Your task to perform on an android device: Show me the alarms in the clock app Image 0: 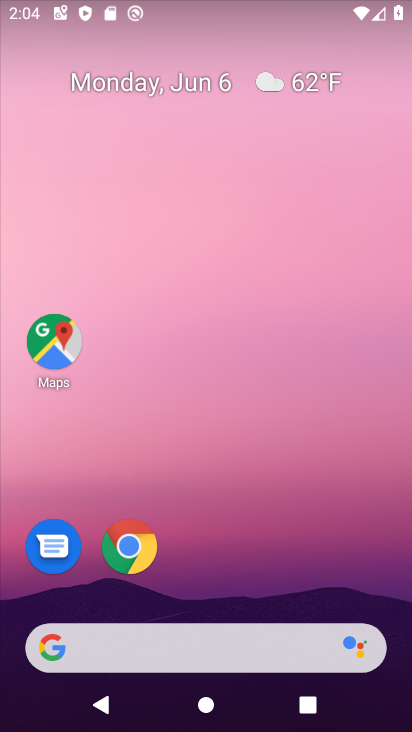
Step 0: drag from (290, 556) to (287, 159)
Your task to perform on an android device: Show me the alarms in the clock app Image 1: 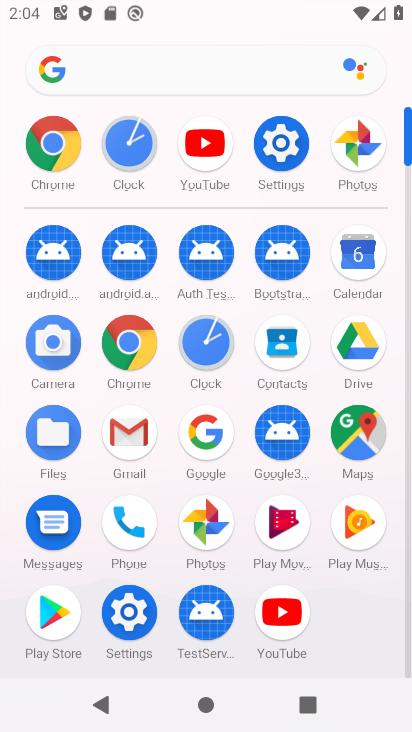
Step 1: click (126, 154)
Your task to perform on an android device: Show me the alarms in the clock app Image 2: 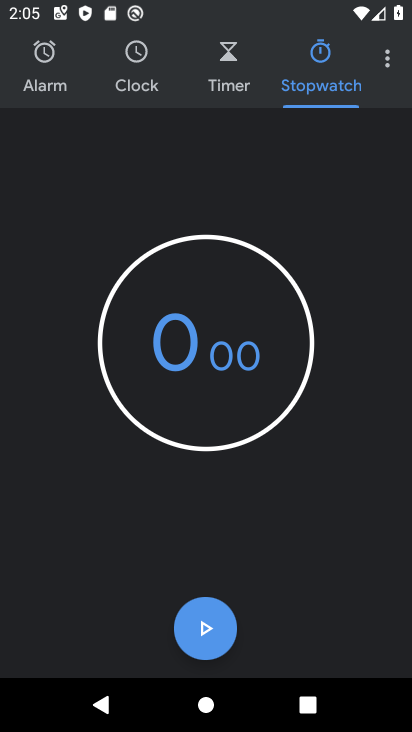
Step 2: click (54, 68)
Your task to perform on an android device: Show me the alarms in the clock app Image 3: 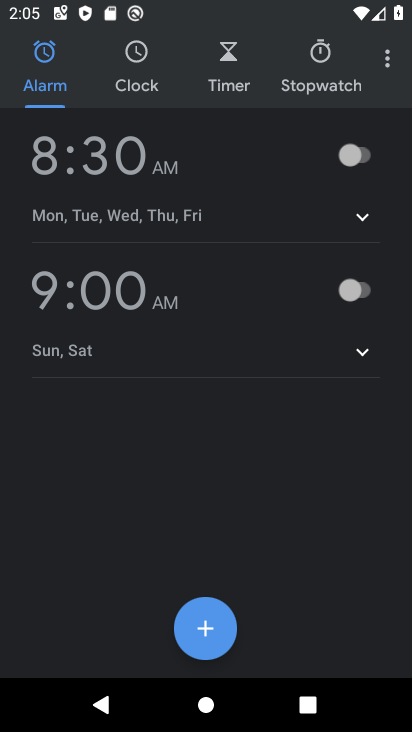
Step 3: task complete